Your task to perform on an android device: Open battery settings Image 0: 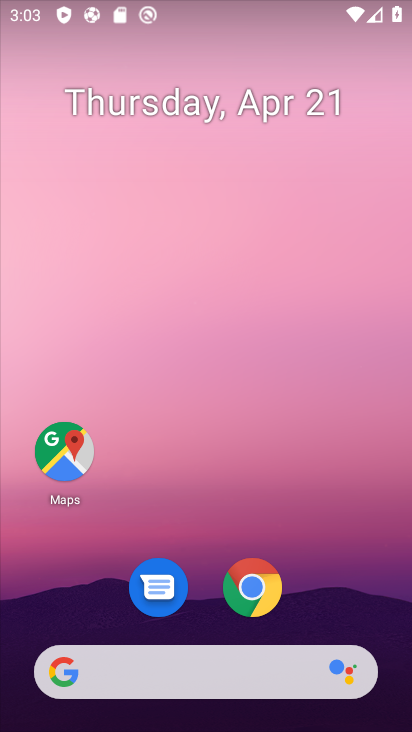
Step 0: click (120, 64)
Your task to perform on an android device: Open battery settings Image 1: 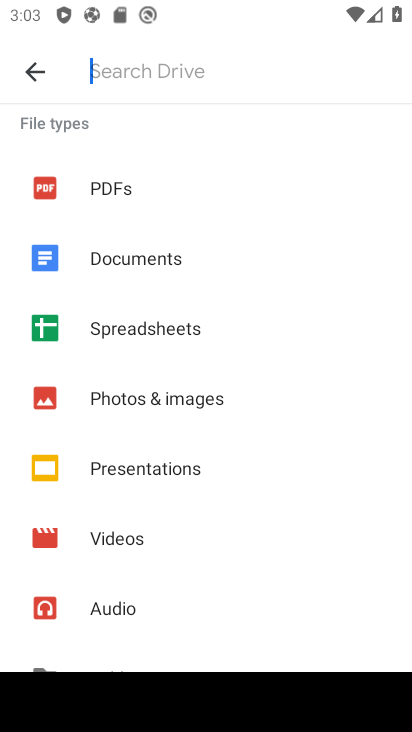
Step 1: press home button
Your task to perform on an android device: Open battery settings Image 2: 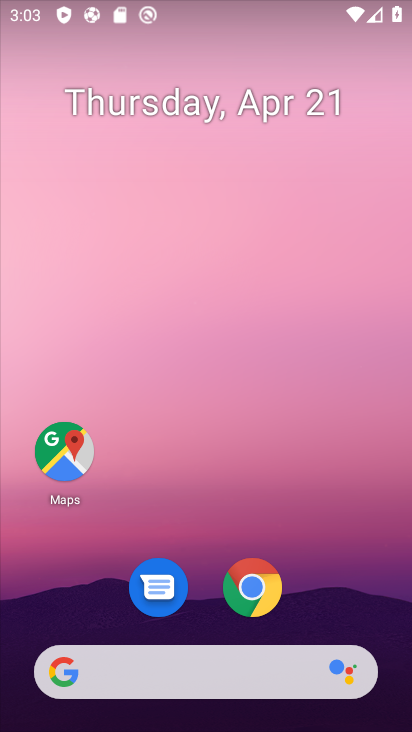
Step 2: drag from (317, 547) to (79, 74)
Your task to perform on an android device: Open battery settings Image 3: 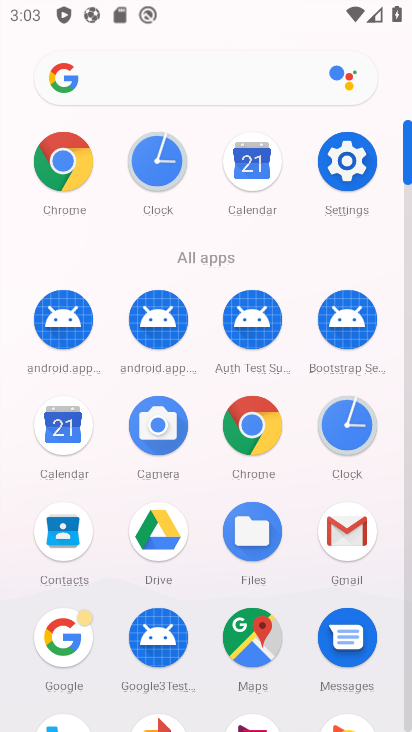
Step 3: click (344, 163)
Your task to perform on an android device: Open battery settings Image 4: 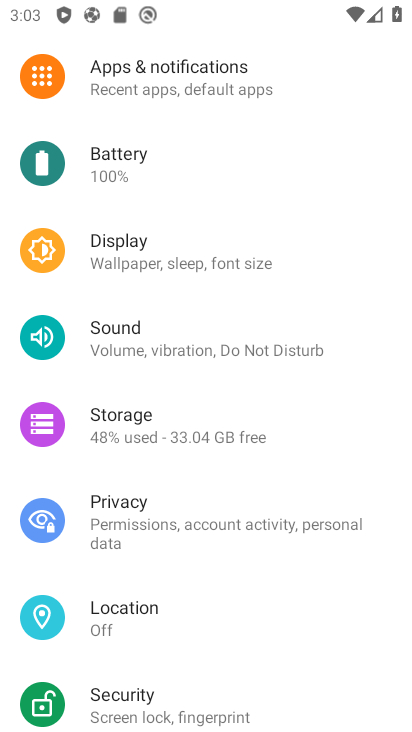
Step 4: click (85, 165)
Your task to perform on an android device: Open battery settings Image 5: 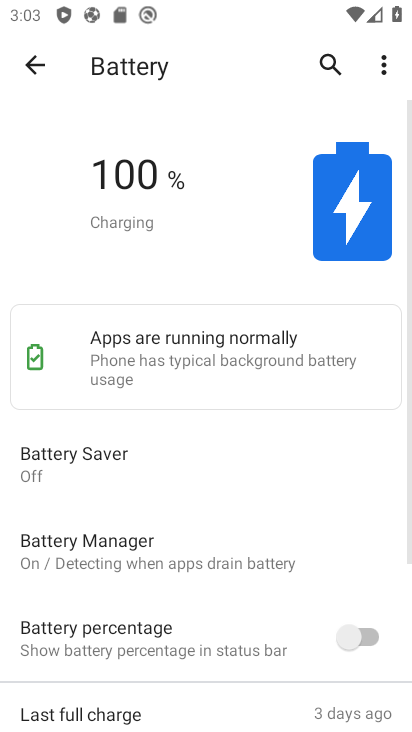
Step 5: task complete